Your task to perform on an android device: change alarm snooze length Image 0: 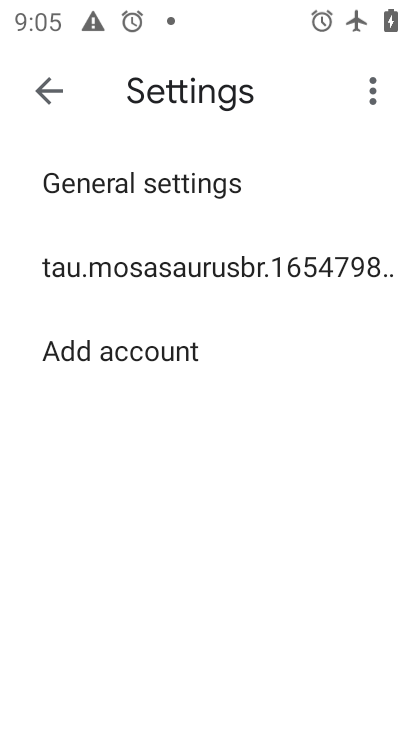
Step 0: press home button
Your task to perform on an android device: change alarm snooze length Image 1: 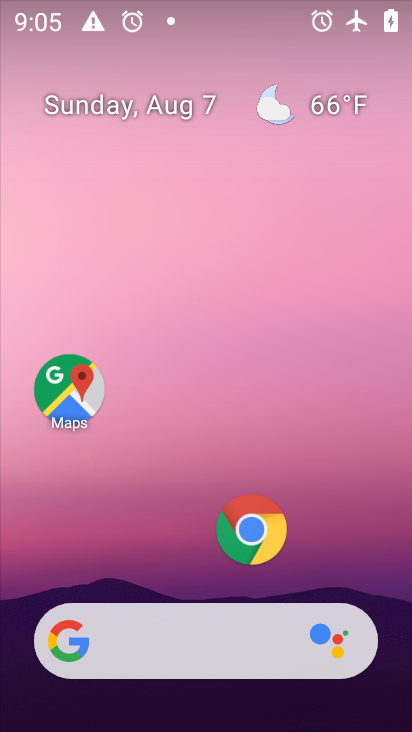
Step 1: drag from (159, 561) to (190, 21)
Your task to perform on an android device: change alarm snooze length Image 2: 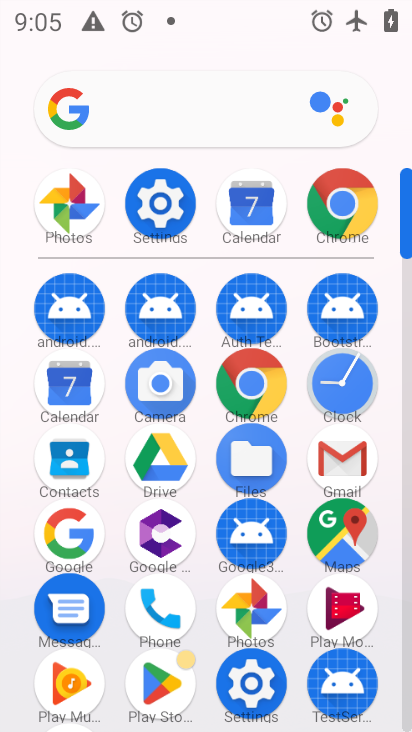
Step 2: click (353, 383)
Your task to perform on an android device: change alarm snooze length Image 3: 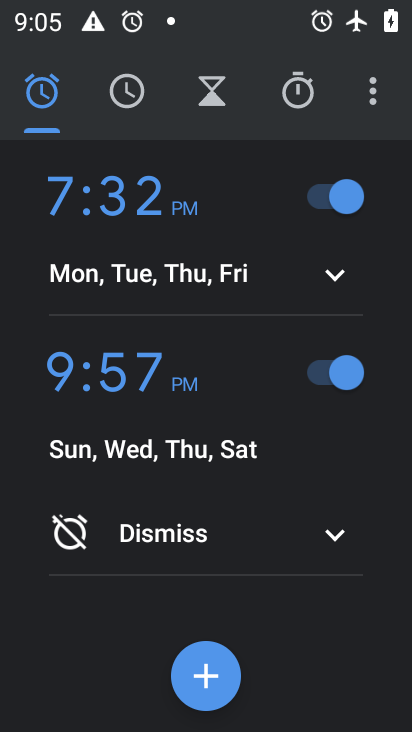
Step 3: click (370, 106)
Your task to perform on an android device: change alarm snooze length Image 4: 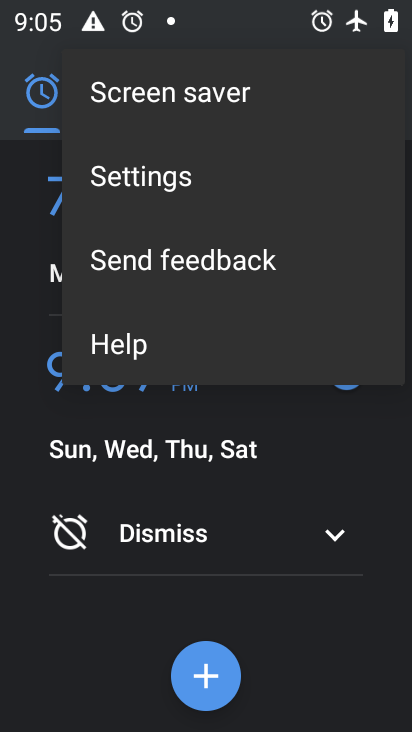
Step 4: click (145, 180)
Your task to perform on an android device: change alarm snooze length Image 5: 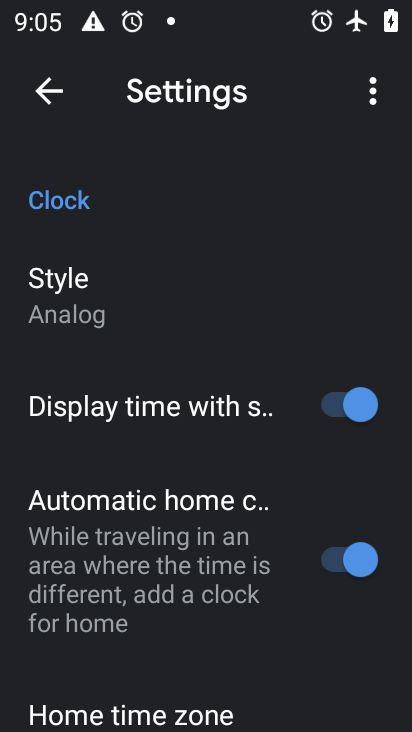
Step 5: drag from (111, 536) to (134, 303)
Your task to perform on an android device: change alarm snooze length Image 6: 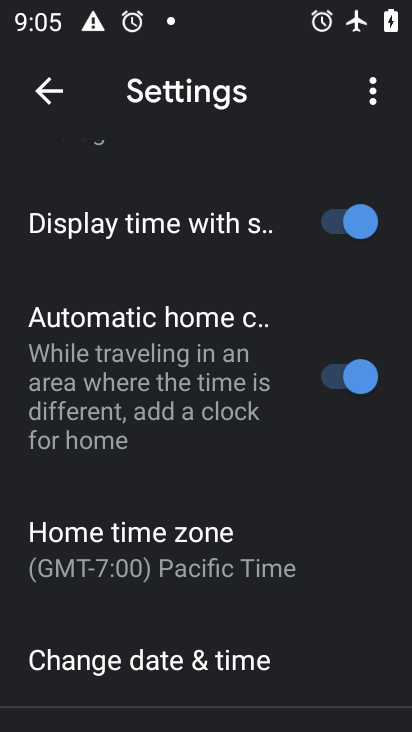
Step 6: drag from (140, 544) to (191, 276)
Your task to perform on an android device: change alarm snooze length Image 7: 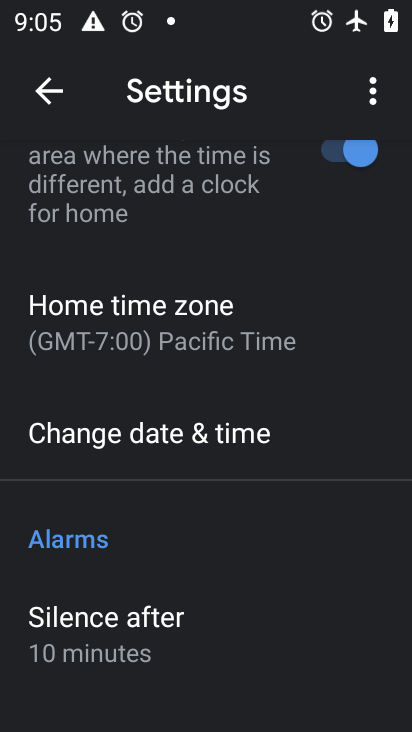
Step 7: drag from (143, 554) to (206, 212)
Your task to perform on an android device: change alarm snooze length Image 8: 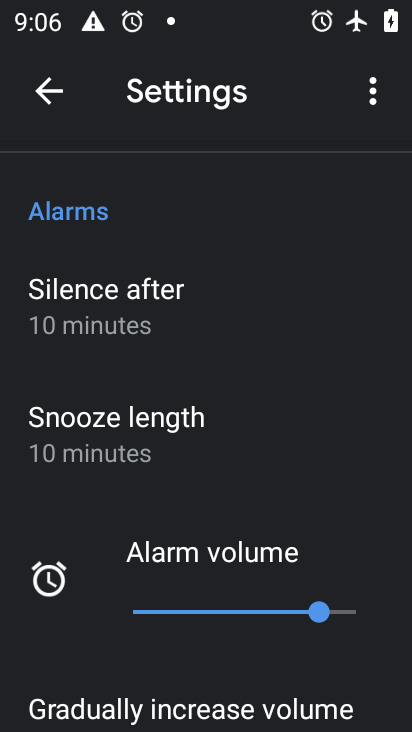
Step 8: click (64, 445)
Your task to perform on an android device: change alarm snooze length Image 9: 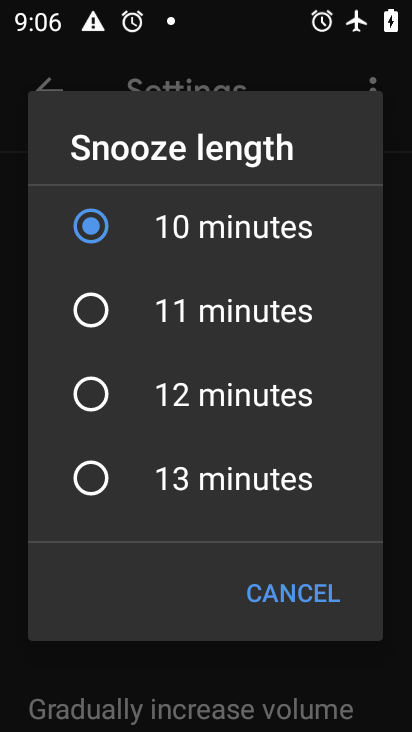
Step 9: click (112, 477)
Your task to perform on an android device: change alarm snooze length Image 10: 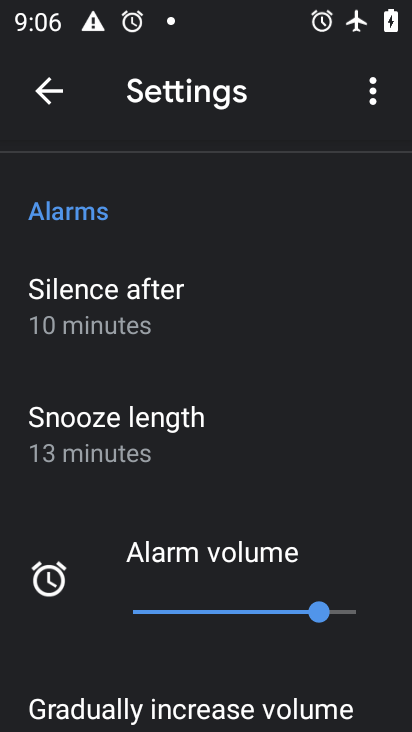
Step 10: task complete